Your task to perform on an android device: see creations saved in the google photos Image 0: 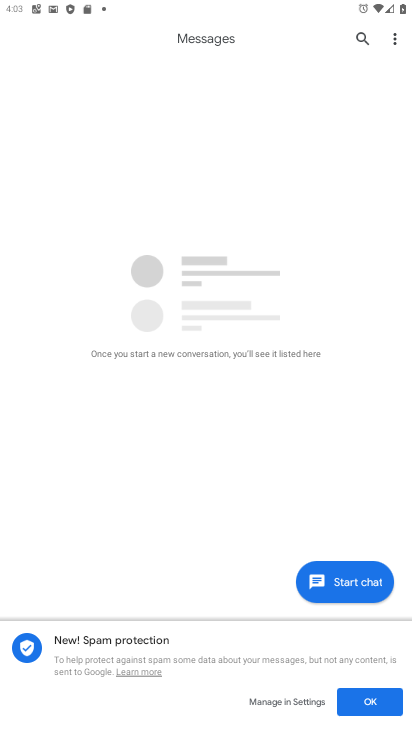
Step 0: press home button
Your task to perform on an android device: see creations saved in the google photos Image 1: 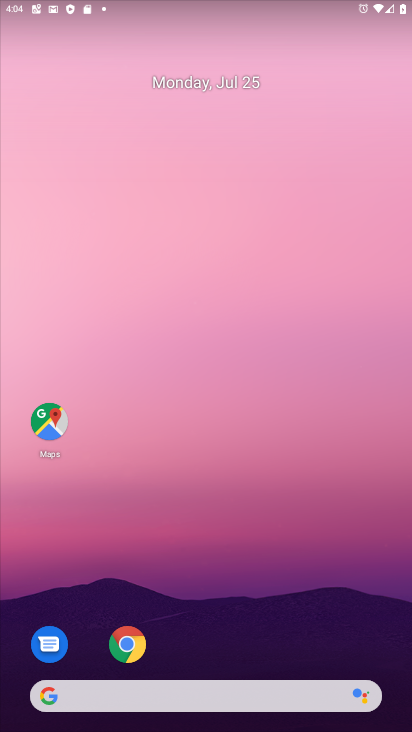
Step 1: drag from (261, 612) to (270, 106)
Your task to perform on an android device: see creations saved in the google photos Image 2: 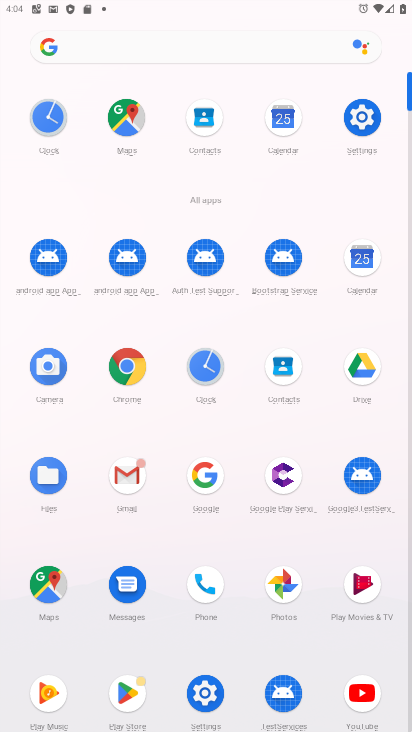
Step 2: click (278, 581)
Your task to perform on an android device: see creations saved in the google photos Image 3: 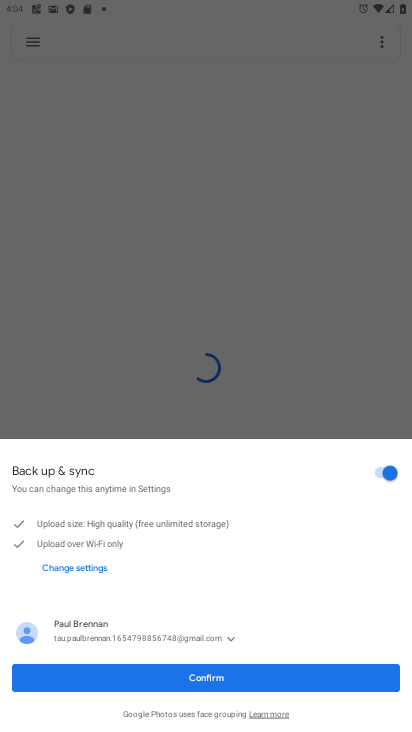
Step 3: click (197, 671)
Your task to perform on an android device: see creations saved in the google photos Image 4: 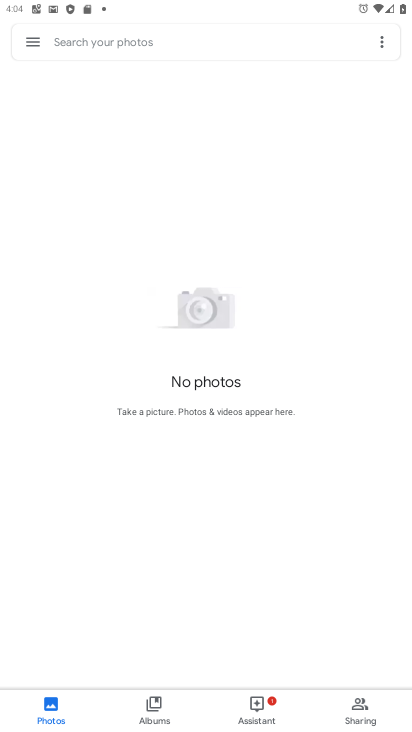
Step 4: drag from (259, 629) to (265, 220)
Your task to perform on an android device: see creations saved in the google photos Image 5: 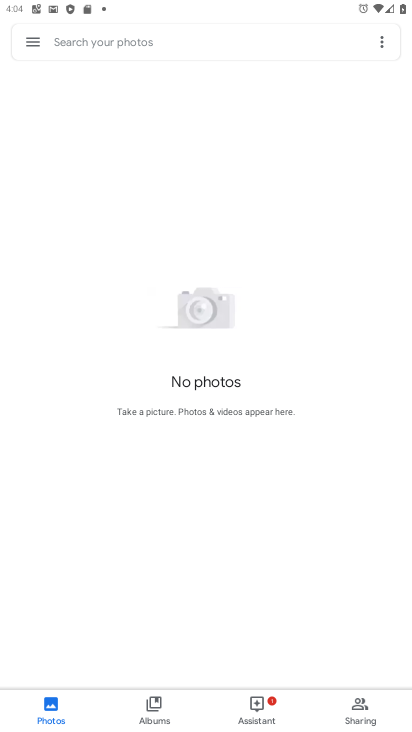
Step 5: click (142, 715)
Your task to perform on an android device: see creations saved in the google photos Image 6: 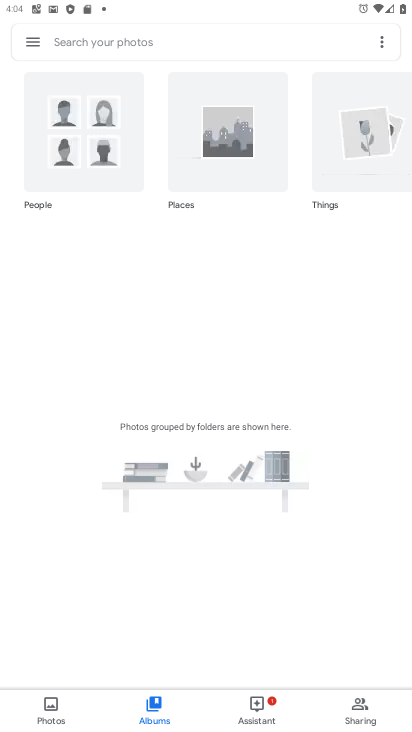
Step 6: drag from (315, 585) to (351, 170)
Your task to perform on an android device: see creations saved in the google photos Image 7: 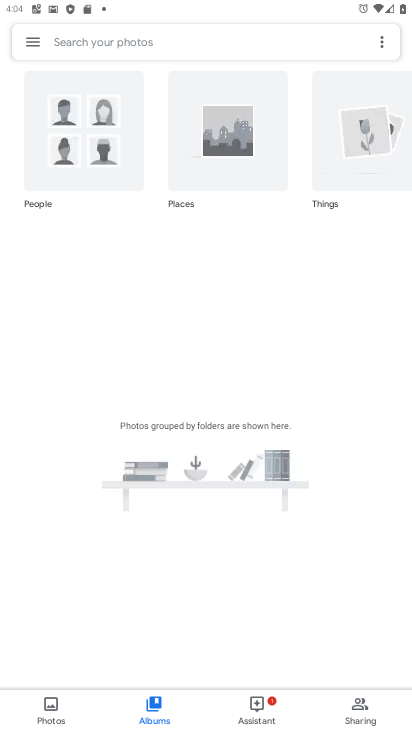
Step 7: click (257, 708)
Your task to perform on an android device: see creations saved in the google photos Image 8: 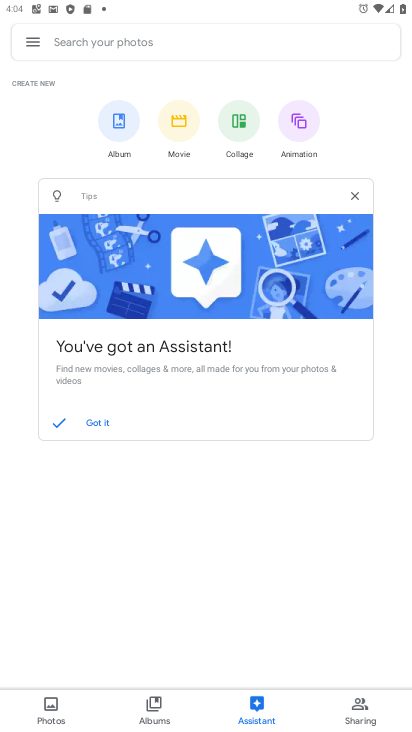
Step 8: task complete